Your task to perform on an android device: Open Google Maps and go to "Timeline" Image 0: 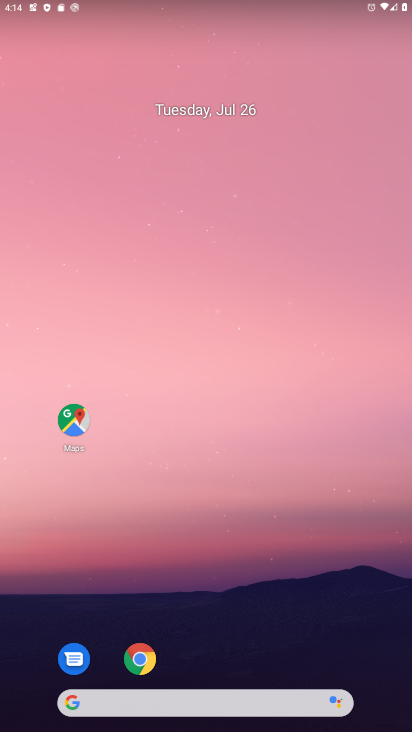
Step 0: drag from (285, 640) to (363, 69)
Your task to perform on an android device: Open Google Maps and go to "Timeline" Image 1: 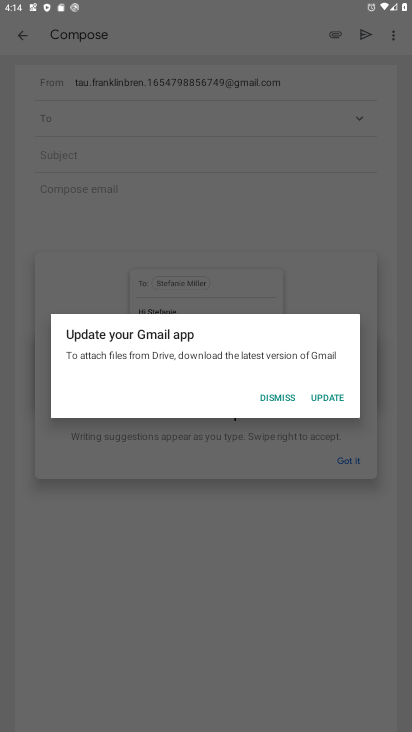
Step 1: press home button
Your task to perform on an android device: Open Google Maps and go to "Timeline" Image 2: 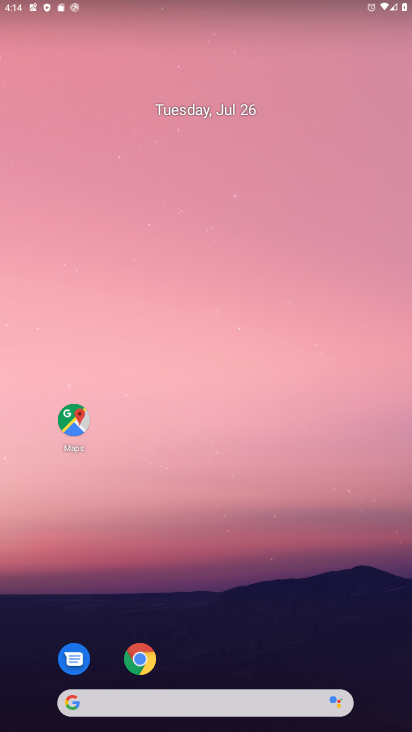
Step 2: drag from (238, 518) to (300, 12)
Your task to perform on an android device: Open Google Maps and go to "Timeline" Image 3: 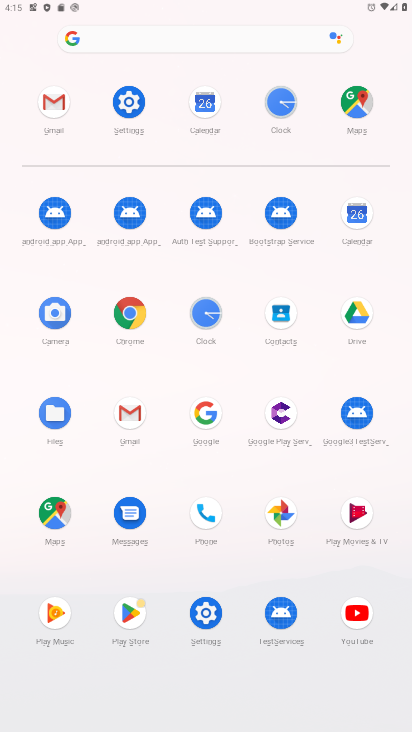
Step 3: click (66, 512)
Your task to perform on an android device: Open Google Maps and go to "Timeline" Image 4: 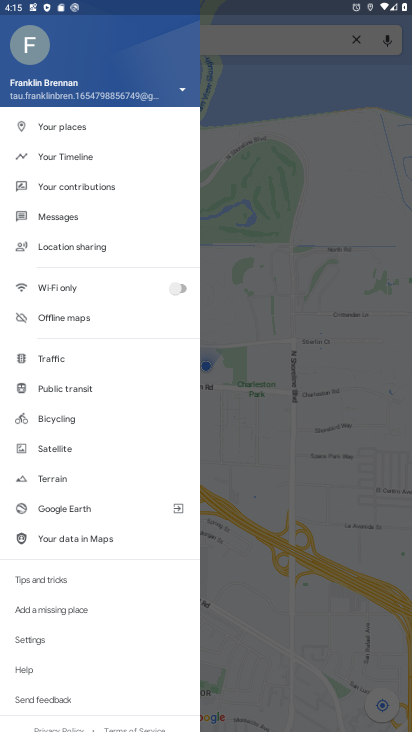
Step 4: click (83, 156)
Your task to perform on an android device: Open Google Maps and go to "Timeline" Image 5: 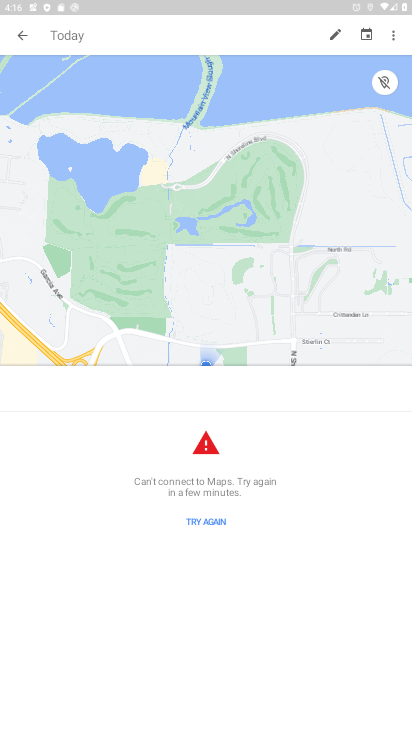
Step 5: task complete